Your task to perform on an android device: check data usage Image 0: 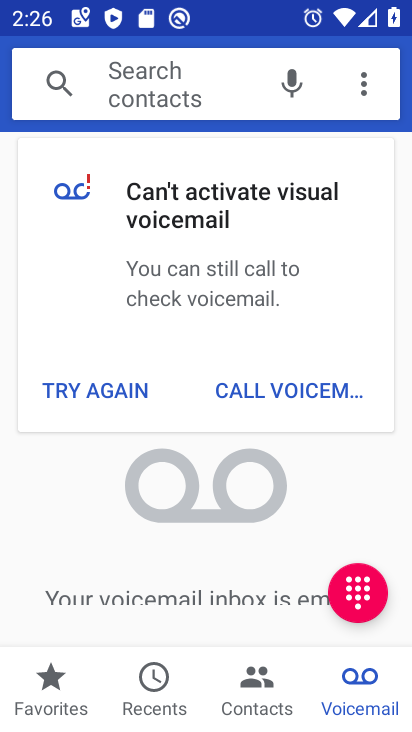
Step 0: press home button
Your task to perform on an android device: check data usage Image 1: 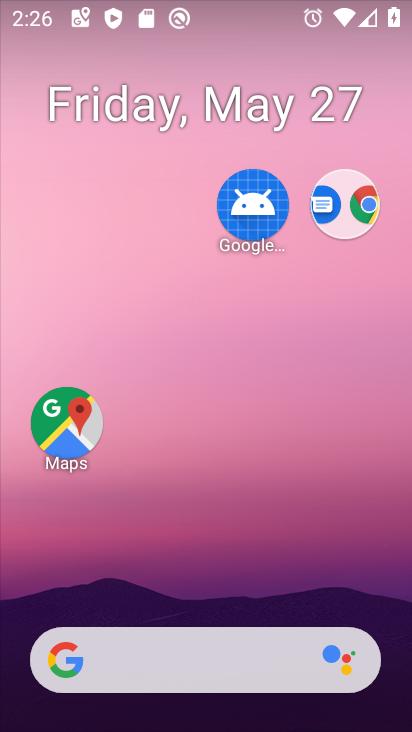
Step 1: drag from (212, 659) to (305, 255)
Your task to perform on an android device: check data usage Image 2: 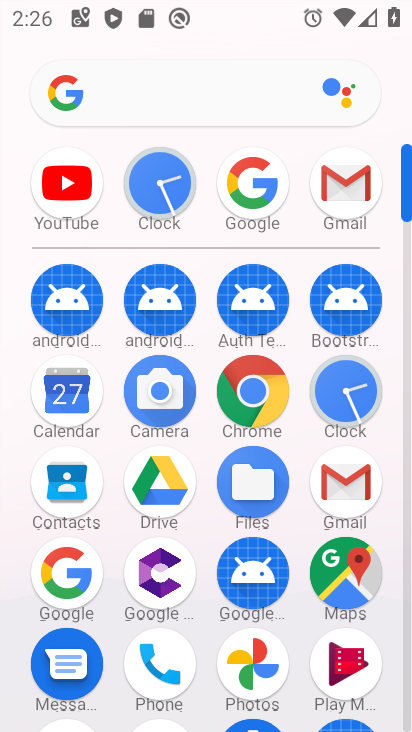
Step 2: drag from (273, 482) to (390, 173)
Your task to perform on an android device: check data usage Image 3: 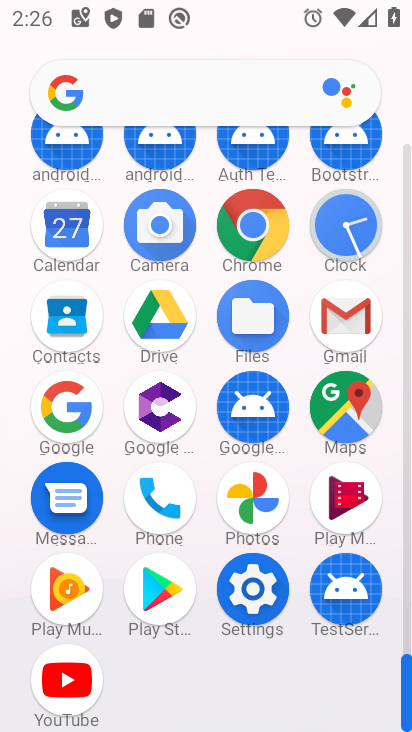
Step 3: click (266, 612)
Your task to perform on an android device: check data usage Image 4: 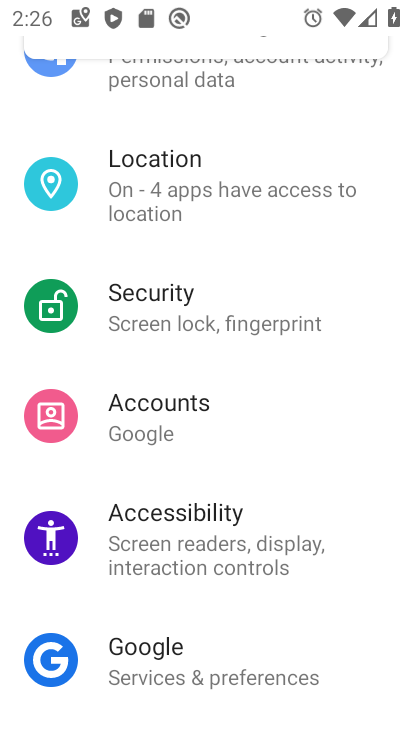
Step 4: drag from (241, 266) to (227, 644)
Your task to perform on an android device: check data usage Image 5: 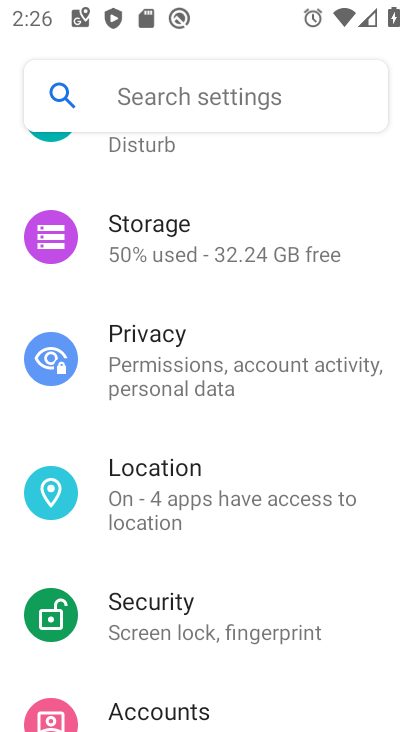
Step 5: drag from (278, 350) to (221, 717)
Your task to perform on an android device: check data usage Image 6: 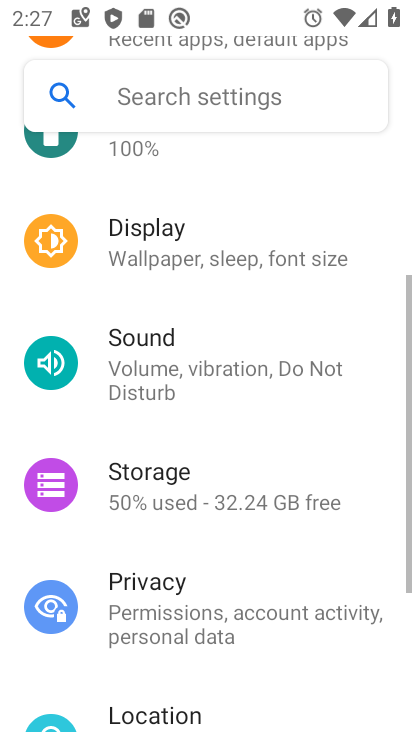
Step 6: drag from (279, 448) to (243, 721)
Your task to perform on an android device: check data usage Image 7: 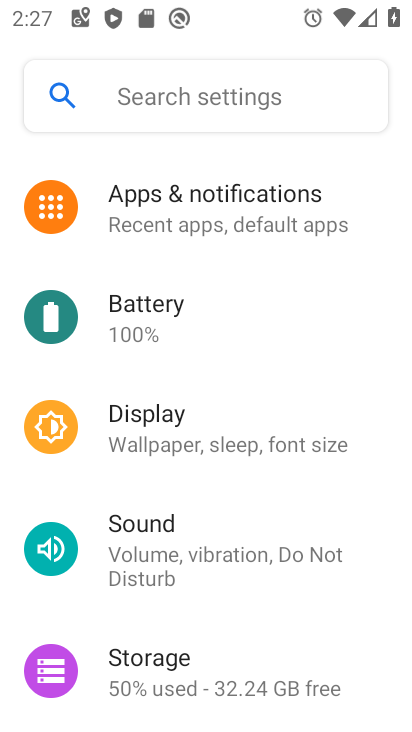
Step 7: drag from (302, 337) to (232, 728)
Your task to perform on an android device: check data usage Image 8: 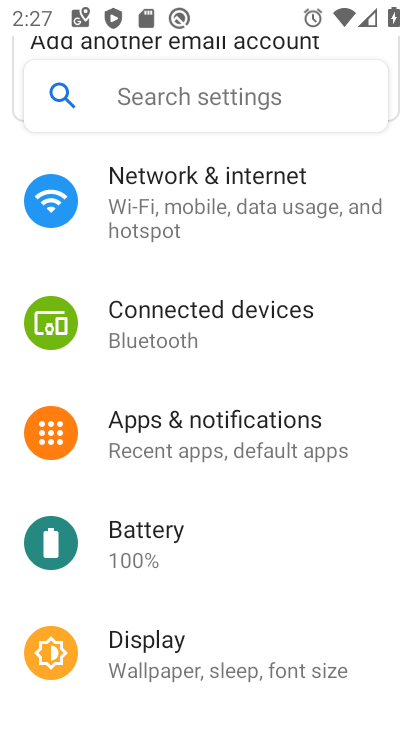
Step 8: drag from (311, 311) to (244, 709)
Your task to perform on an android device: check data usage Image 9: 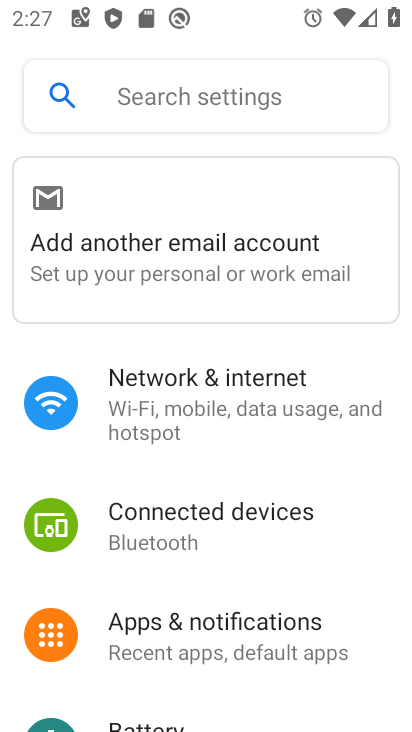
Step 9: click (244, 401)
Your task to perform on an android device: check data usage Image 10: 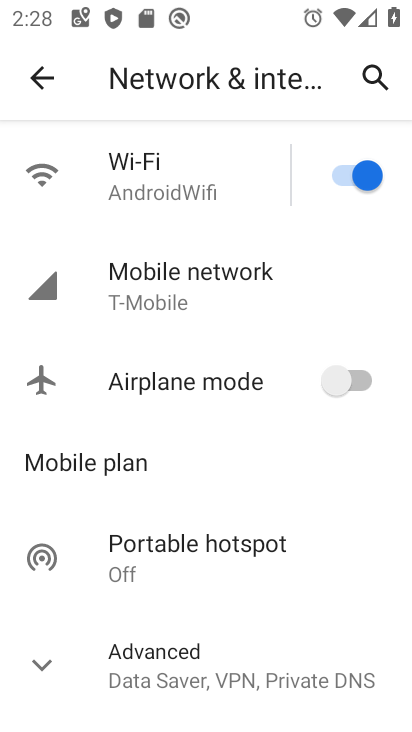
Step 10: click (289, 301)
Your task to perform on an android device: check data usage Image 11: 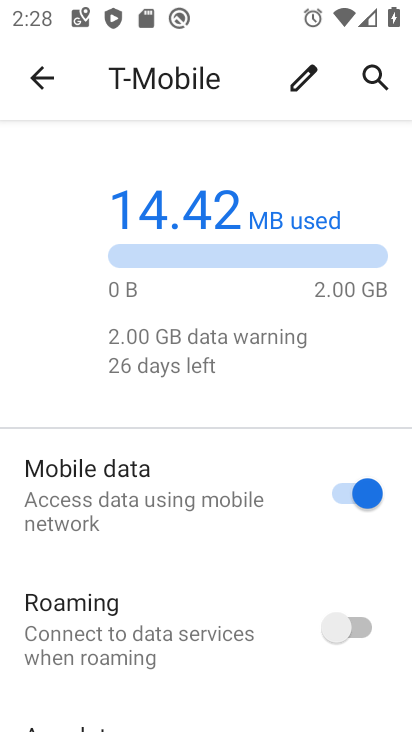
Step 11: drag from (175, 622) to (273, 300)
Your task to perform on an android device: check data usage Image 12: 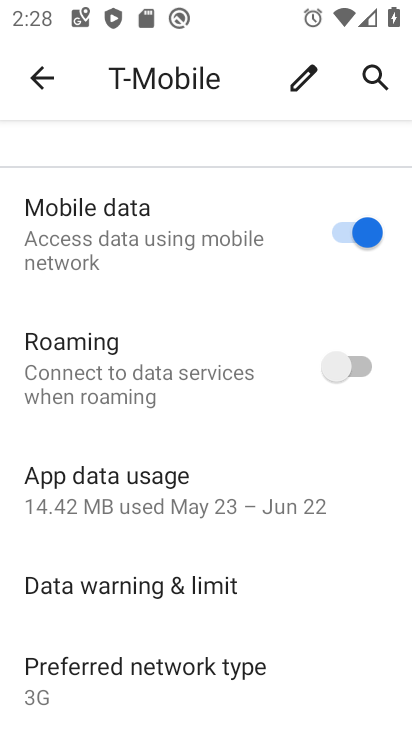
Step 12: click (197, 508)
Your task to perform on an android device: check data usage Image 13: 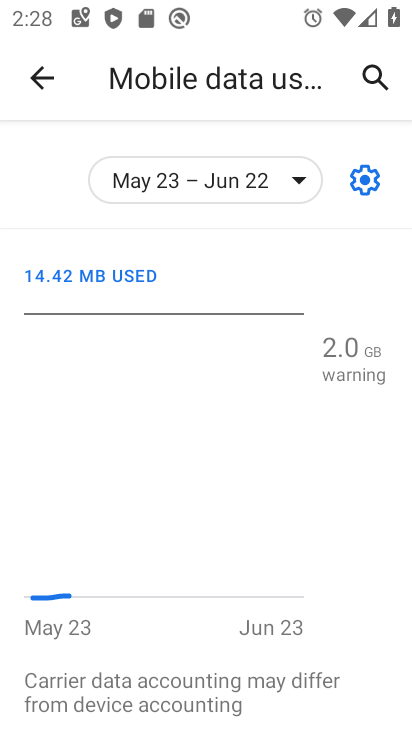
Step 13: task complete